Your task to perform on an android device: Open network settings Image 0: 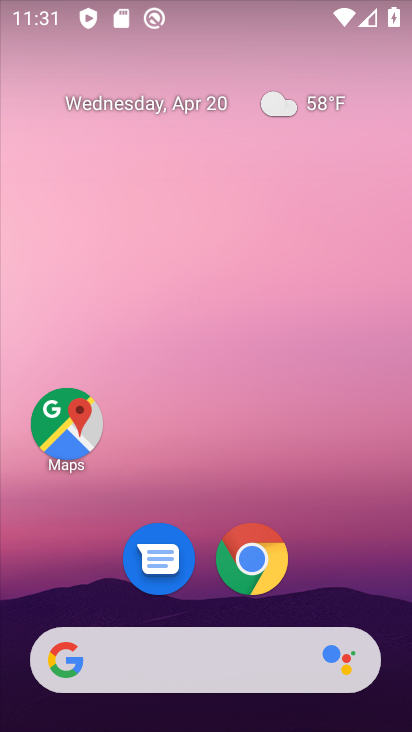
Step 0: drag from (308, 408) to (271, 46)
Your task to perform on an android device: Open network settings Image 1: 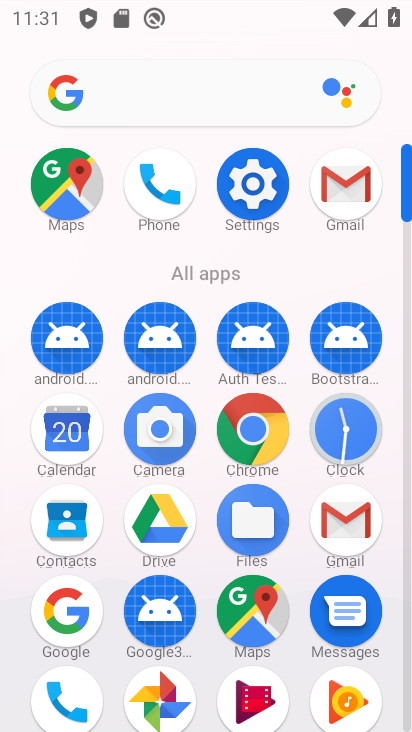
Step 1: click (250, 195)
Your task to perform on an android device: Open network settings Image 2: 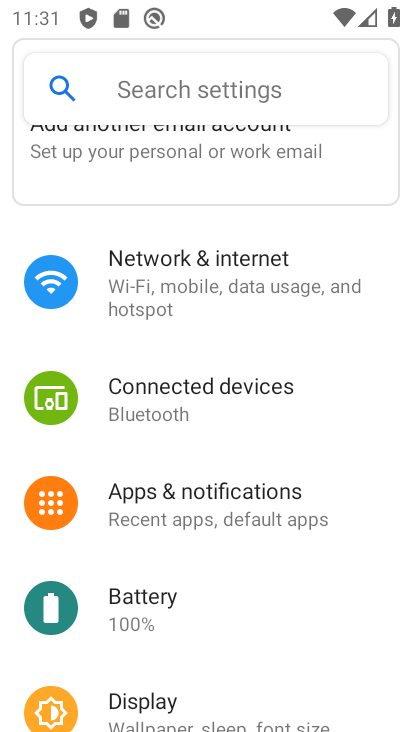
Step 2: click (210, 274)
Your task to perform on an android device: Open network settings Image 3: 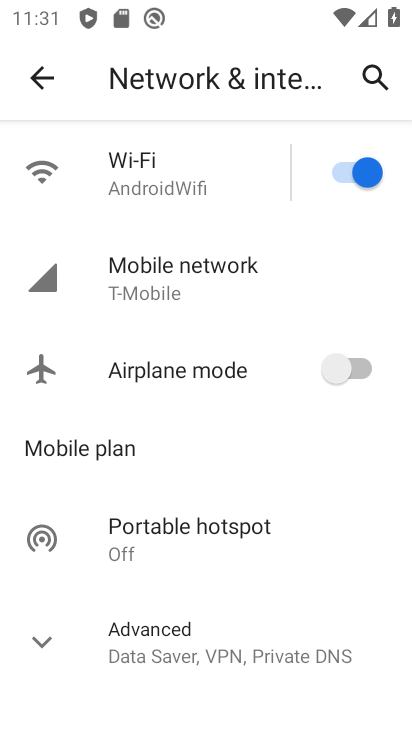
Step 3: task complete